Your task to perform on an android device: turn notification dots on Image 0: 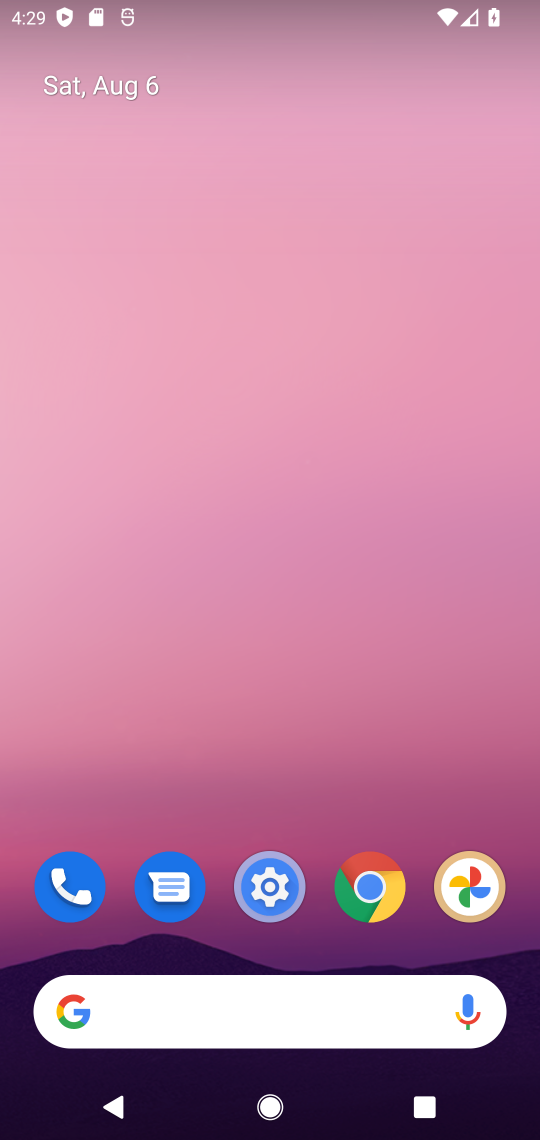
Step 0: click (294, 888)
Your task to perform on an android device: turn notification dots on Image 1: 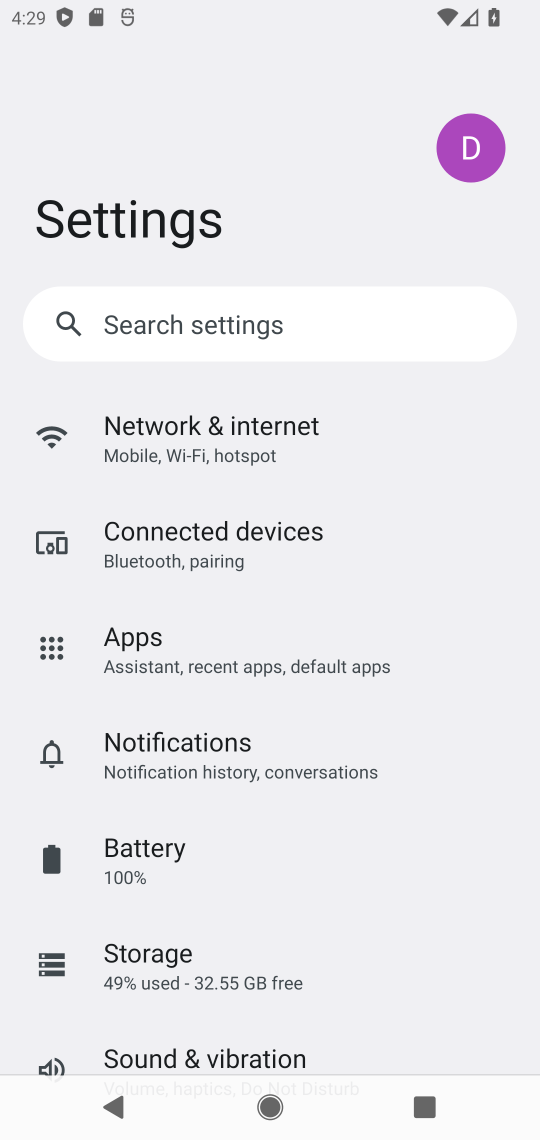
Step 1: drag from (219, 1025) to (290, 415)
Your task to perform on an android device: turn notification dots on Image 2: 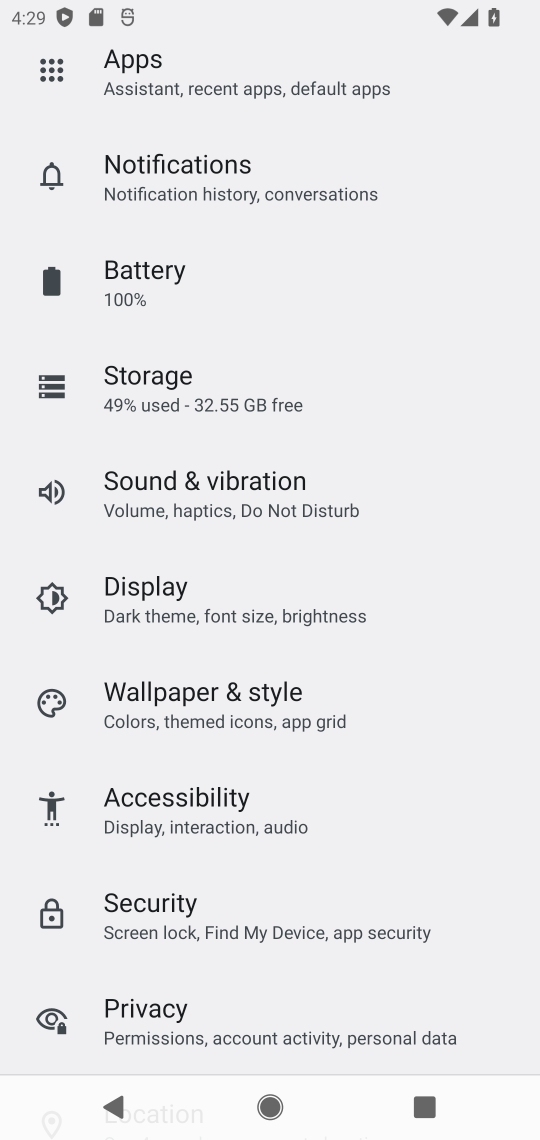
Step 2: click (173, 185)
Your task to perform on an android device: turn notification dots on Image 3: 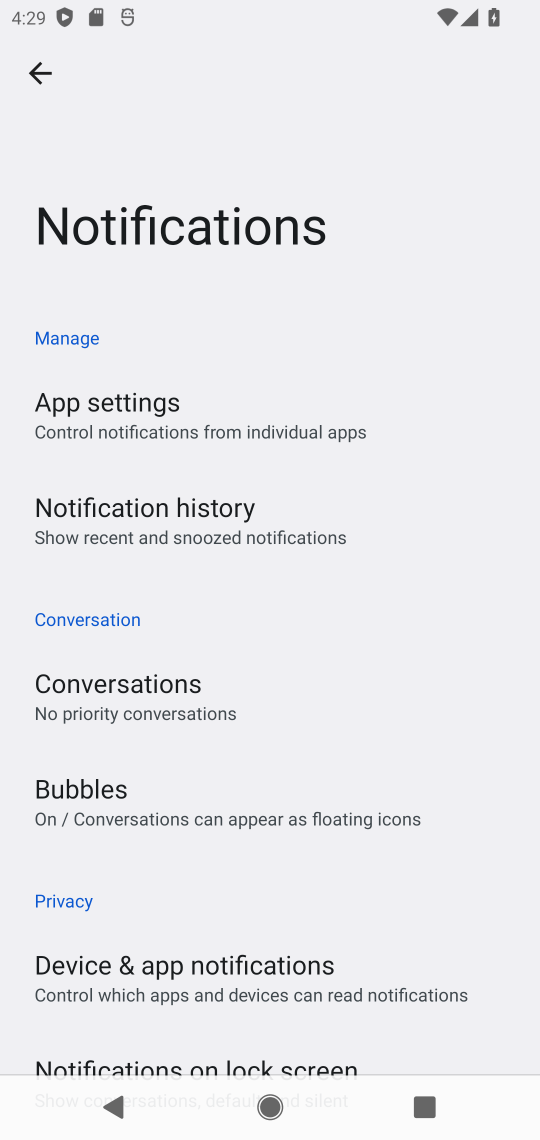
Step 3: task complete